Your task to perform on an android device: move a message to another label in the gmail app Image 0: 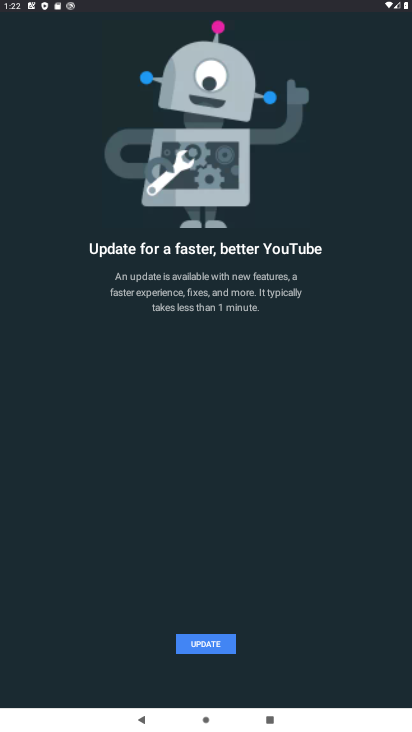
Step 0: click (194, 653)
Your task to perform on an android device: move a message to another label in the gmail app Image 1: 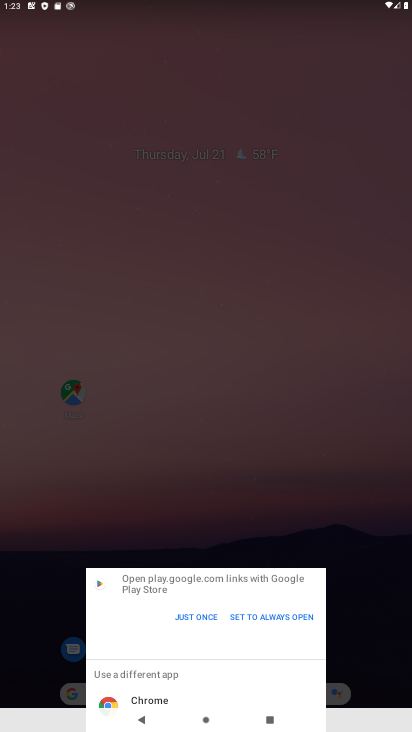
Step 1: click (267, 586)
Your task to perform on an android device: move a message to another label in the gmail app Image 2: 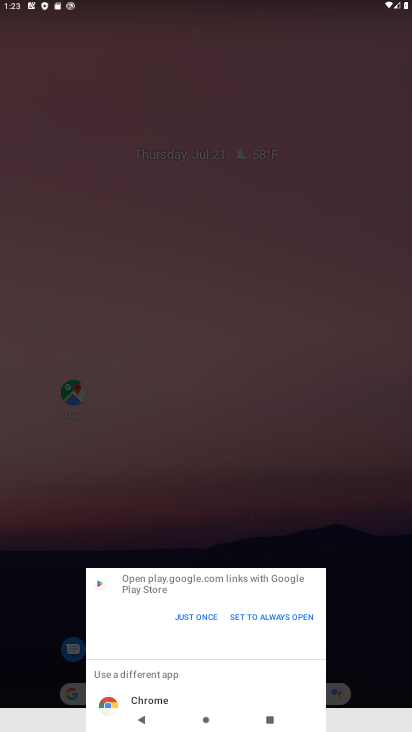
Step 2: click (206, 610)
Your task to perform on an android device: move a message to another label in the gmail app Image 3: 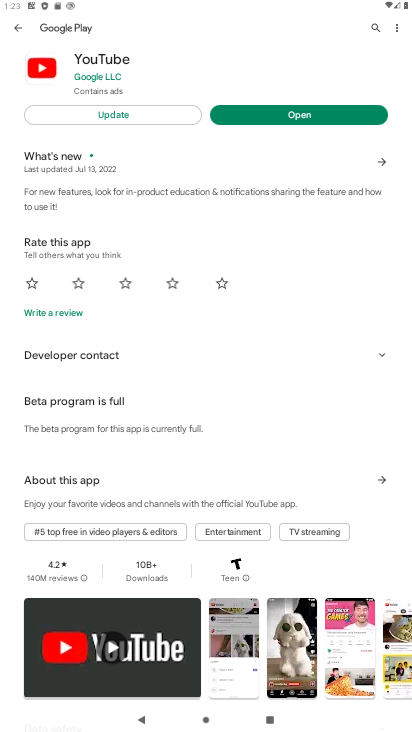
Step 3: press home button
Your task to perform on an android device: move a message to another label in the gmail app Image 4: 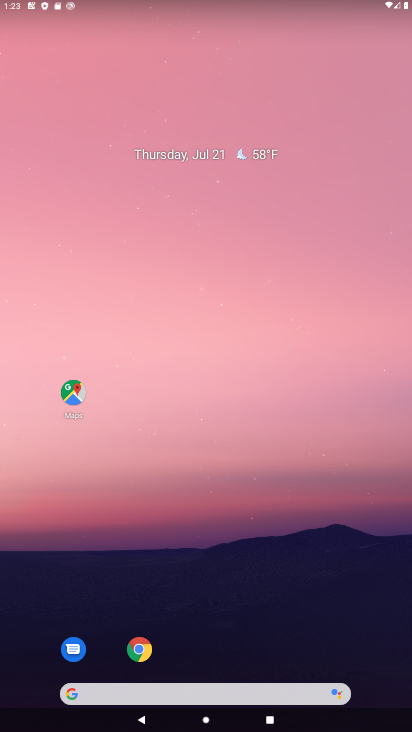
Step 4: drag from (315, 650) to (181, 0)
Your task to perform on an android device: move a message to another label in the gmail app Image 5: 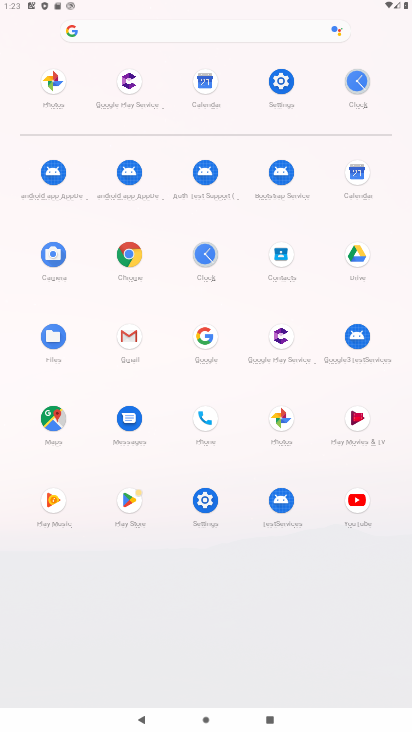
Step 5: click (140, 344)
Your task to perform on an android device: move a message to another label in the gmail app Image 6: 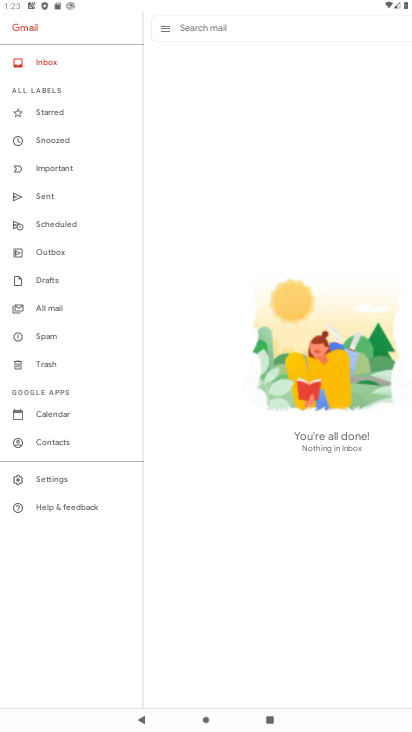
Step 6: click (71, 469)
Your task to perform on an android device: move a message to another label in the gmail app Image 7: 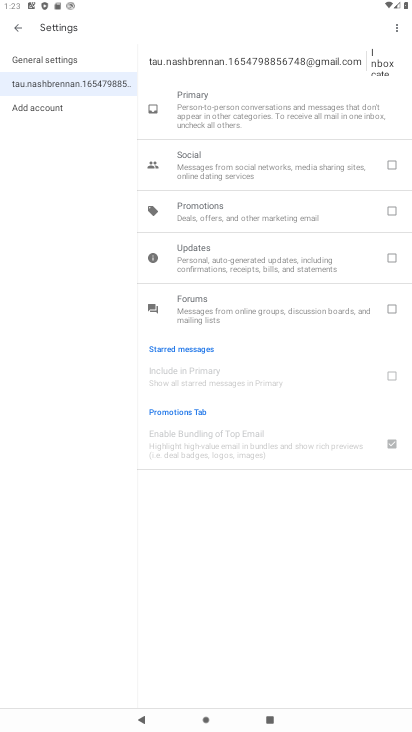
Step 7: task complete